Your task to perform on an android device: check the backup settings in the google photos Image 0: 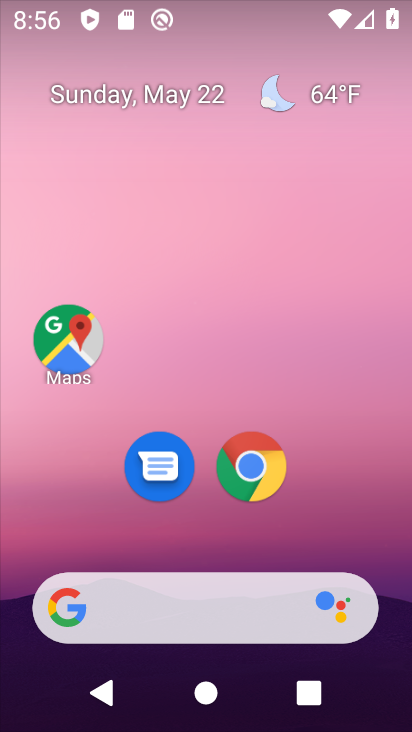
Step 0: drag from (330, 528) to (345, 115)
Your task to perform on an android device: check the backup settings in the google photos Image 1: 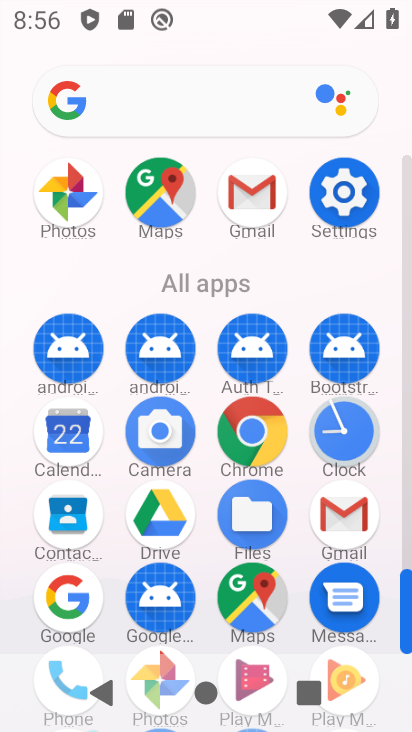
Step 1: drag from (204, 233) to (303, 1)
Your task to perform on an android device: check the backup settings in the google photos Image 2: 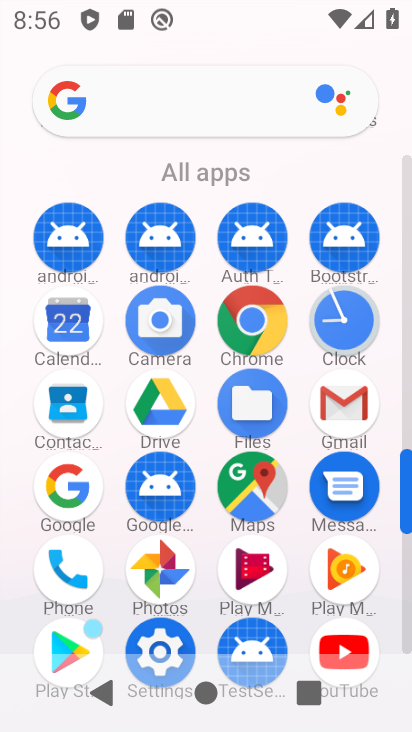
Step 2: click (164, 555)
Your task to perform on an android device: check the backup settings in the google photos Image 3: 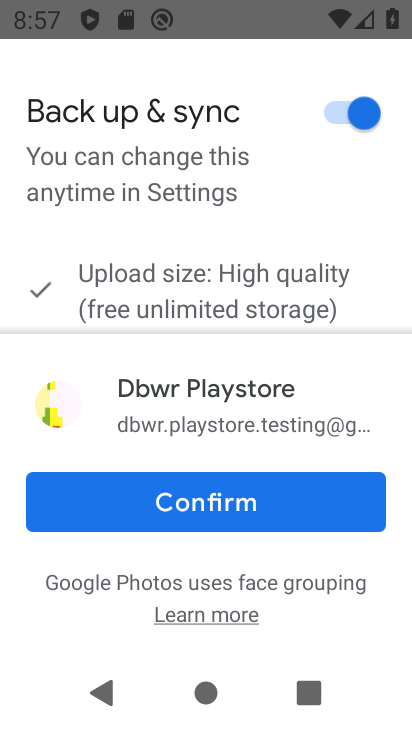
Step 3: click (243, 493)
Your task to perform on an android device: check the backup settings in the google photos Image 4: 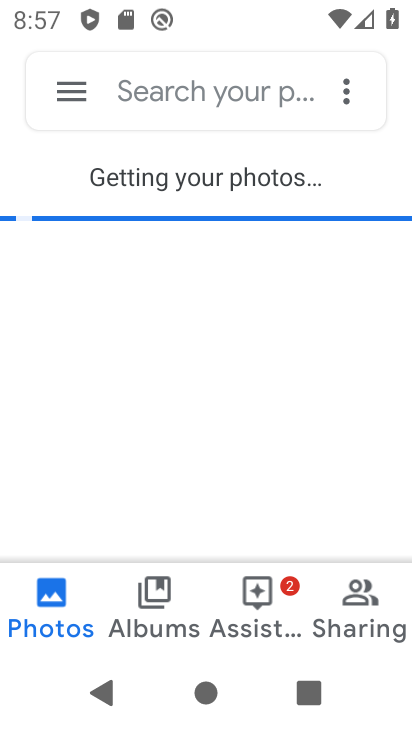
Step 4: click (60, 93)
Your task to perform on an android device: check the backup settings in the google photos Image 5: 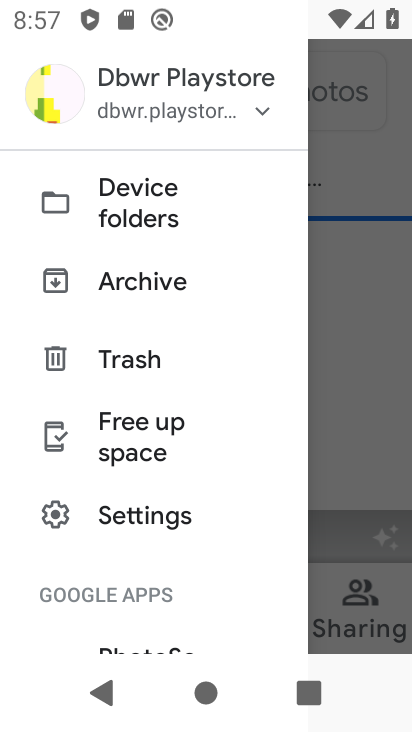
Step 5: click (113, 517)
Your task to perform on an android device: check the backup settings in the google photos Image 6: 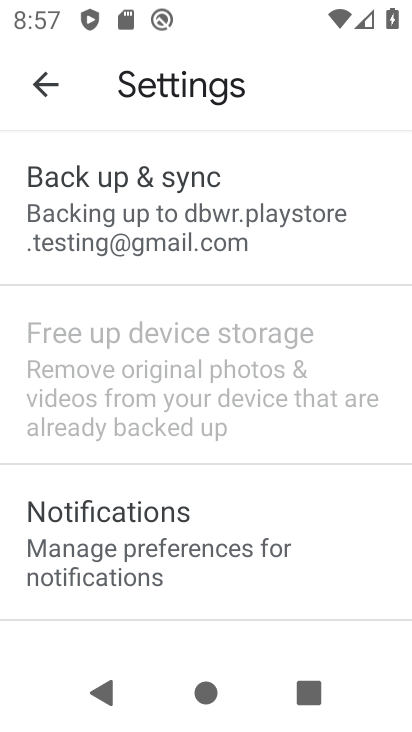
Step 6: click (80, 184)
Your task to perform on an android device: check the backup settings in the google photos Image 7: 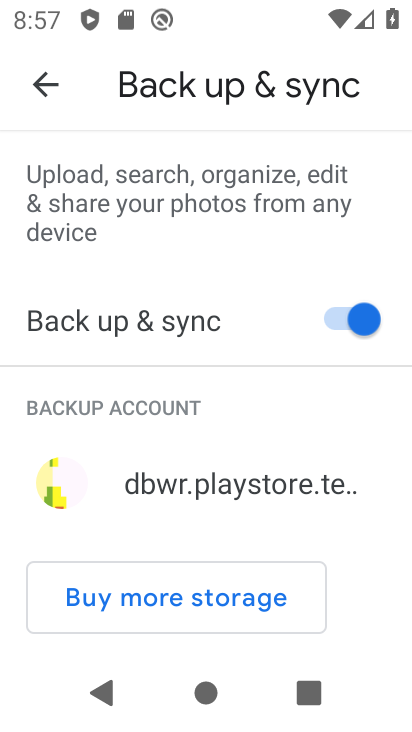
Step 7: task complete